Your task to perform on an android device: turn on airplane mode Image 0: 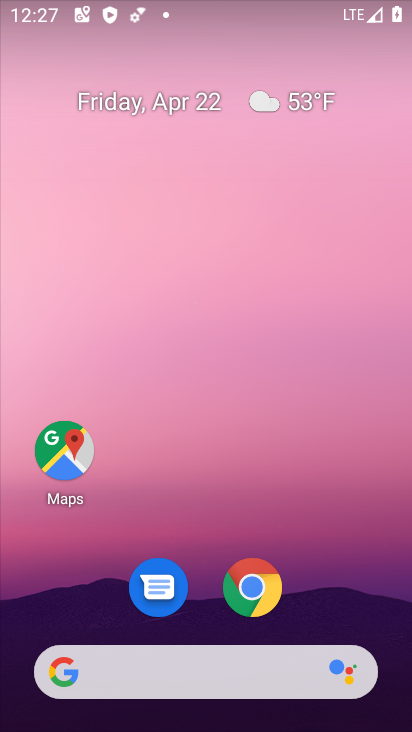
Step 0: drag from (197, 551) to (301, 70)
Your task to perform on an android device: turn on airplane mode Image 1: 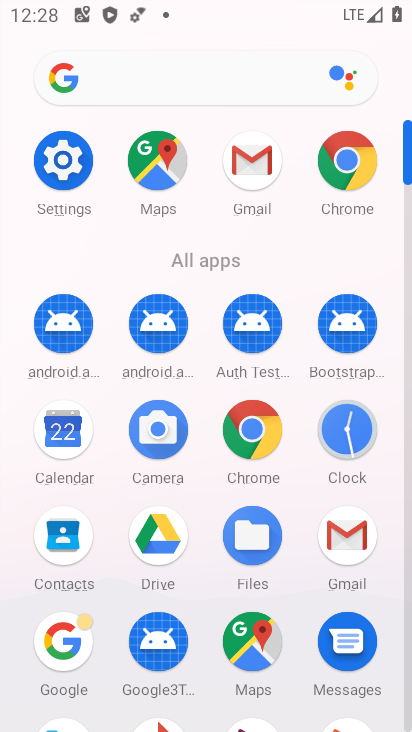
Step 1: click (78, 166)
Your task to perform on an android device: turn on airplane mode Image 2: 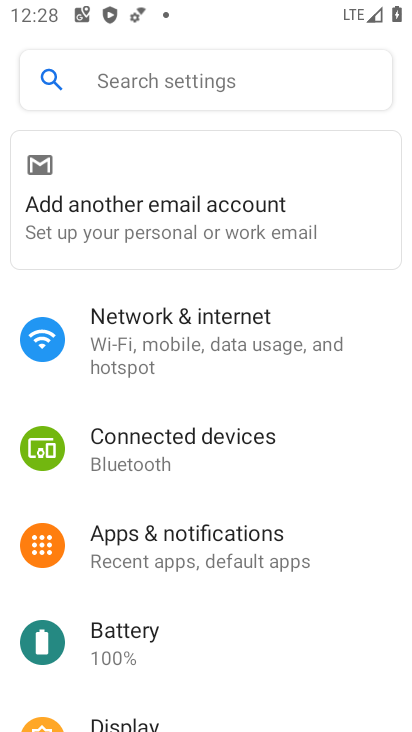
Step 2: click (170, 323)
Your task to perform on an android device: turn on airplane mode Image 3: 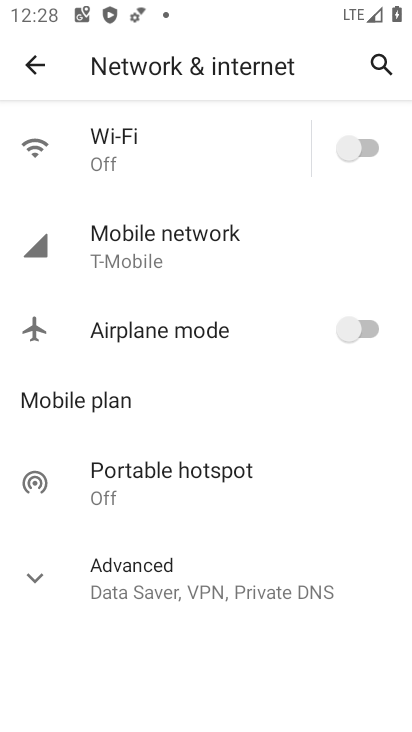
Step 3: click (368, 337)
Your task to perform on an android device: turn on airplane mode Image 4: 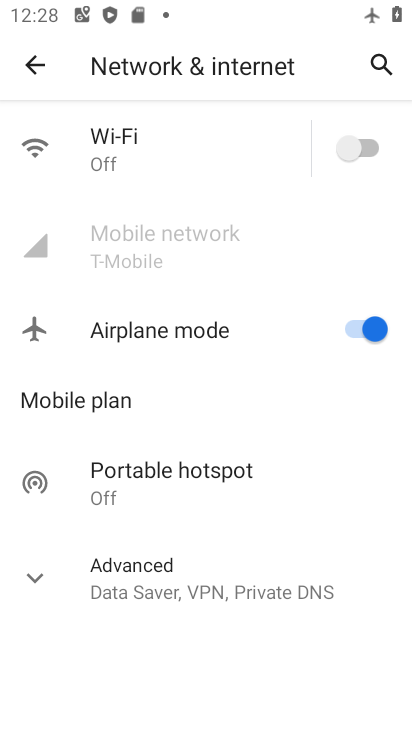
Step 4: task complete